Your task to perform on an android device: turn on location history Image 0: 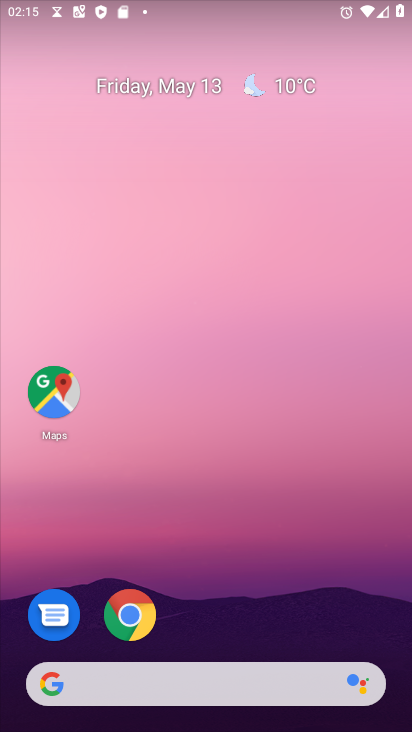
Step 0: drag from (196, 603) to (106, 154)
Your task to perform on an android device: turn on location history Image 1: 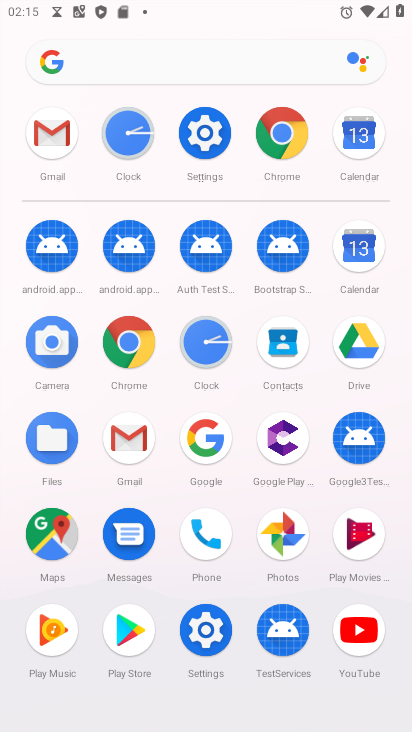
Step 1: click (210, 137)
Your task to perform on an android device: turn on location history Image 2: 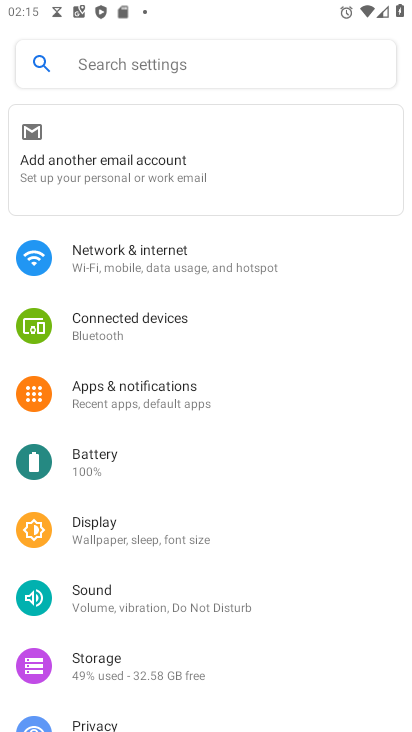
Step 2: drag from (138, 676) to (160, 292)
Your task to perform on an android device: turn on location history Image 3: 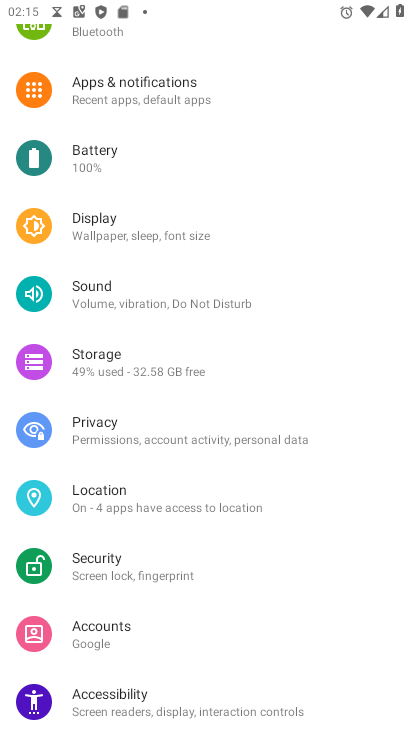
Step 3: click (111, 495)
Your task to perform on an android device: turn on location history Image 4: 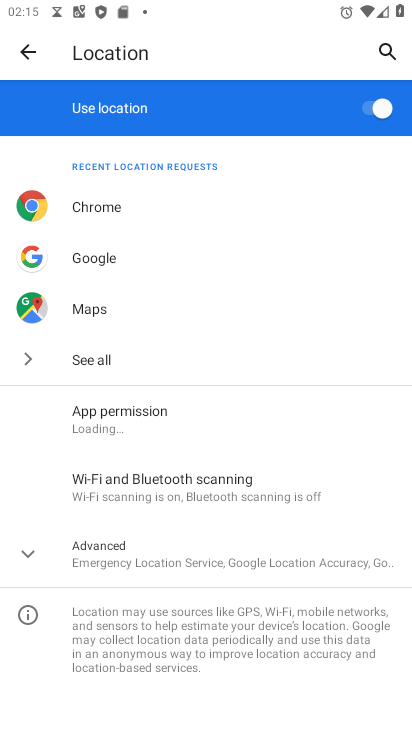
Step 4: click (173, 559)
Your task to perform on an android device: turn on location history Image 5: 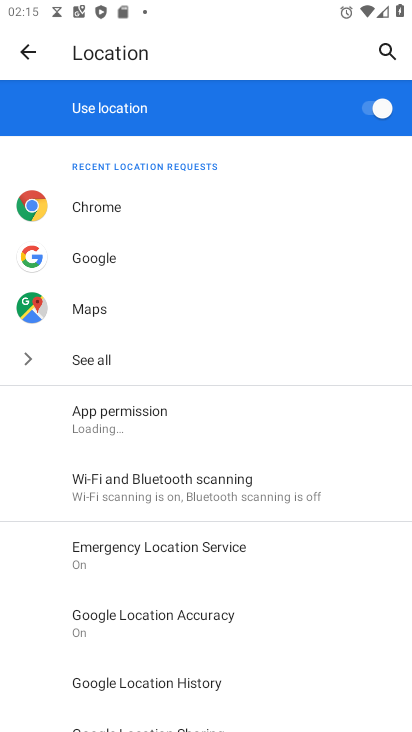
Step 5: click (190, 684)
Your task to perform on an android device: turn on location history Image 6: 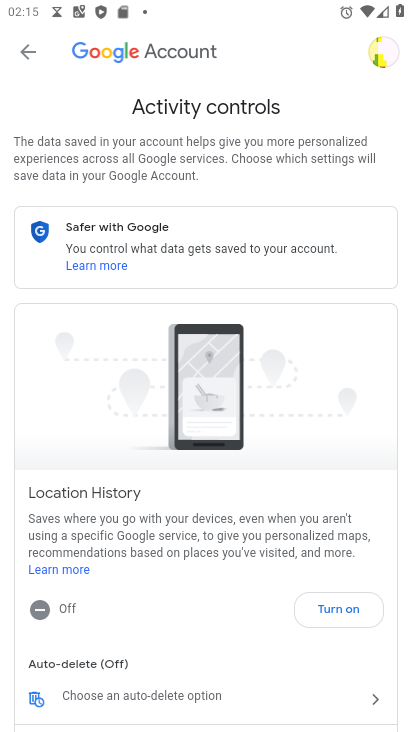
Step 6: click (337, 610)
Your task to perform on an android device: turn on location history Image 7: 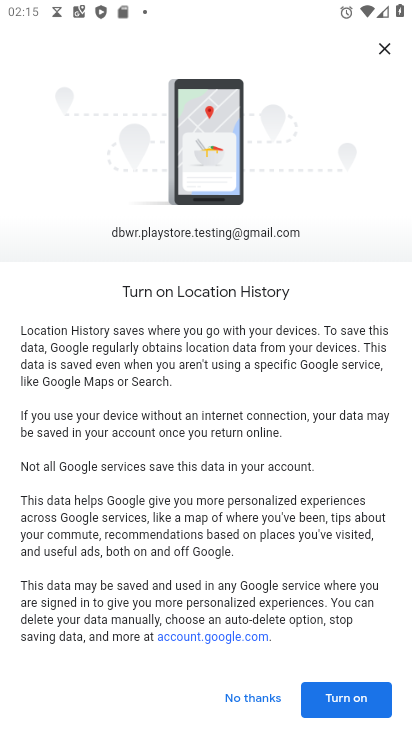
Step 7: click (343, 704)
Your task to perform on an android device: turn on location history Image 8: 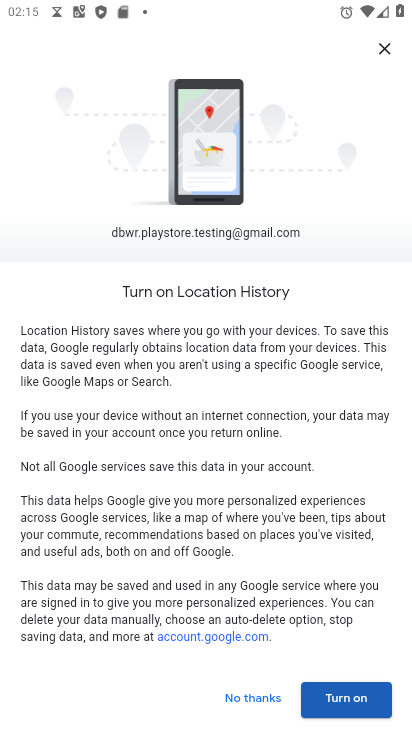
Step 8: click (352, 699)
Your task to perform on an android device: turn on location history Image 9: 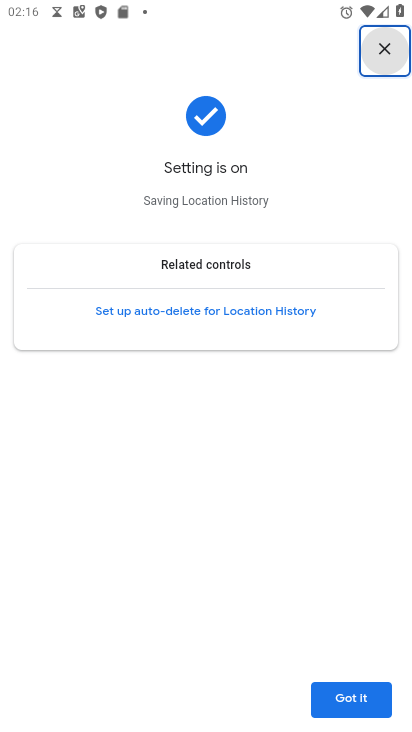
Step 9: task complete